Your task to perform on an android device: set default search engine in the chrome app Image 0: 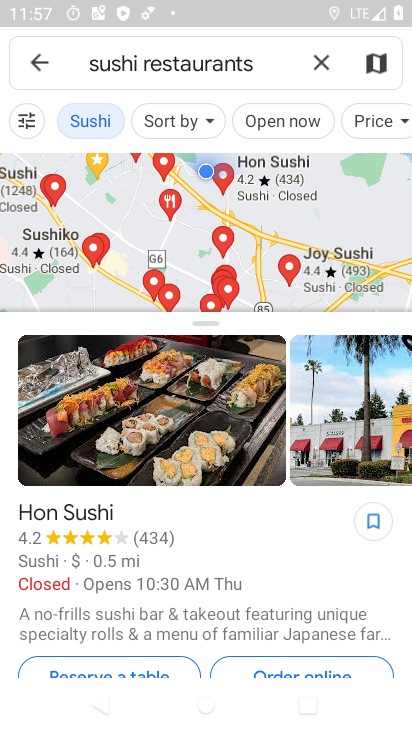
Step 0: press home button
Your task to perform on an android device: set default search engine in the chrome app Image 1: 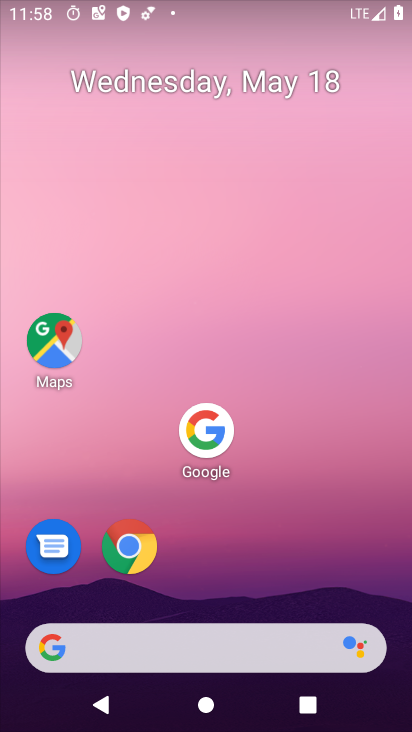
Step 1: click (139, 553)
Your task to perform on an android device: set default search engine in the chrome app Image 2: 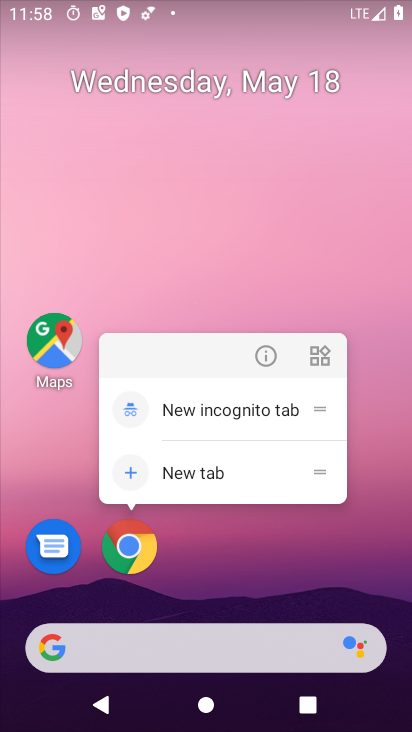
Step 2: click (132, 554)
Your task to perform on an android device: set default search engine in the chrome app Image 3: 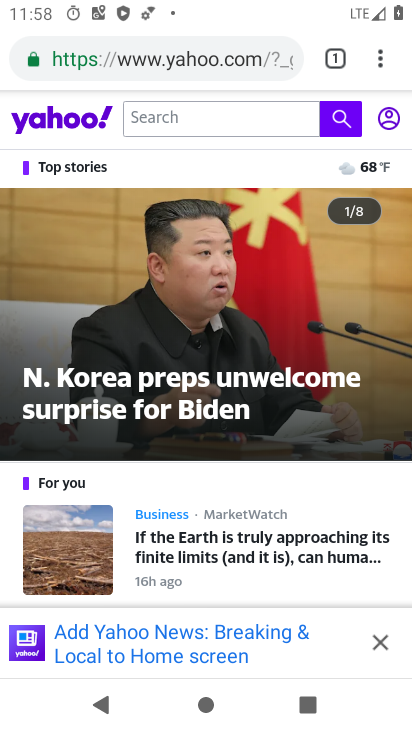
Step 3: click (375, 59)
Your task to perform on an android device: set default search engine in the chrome app Image 4: 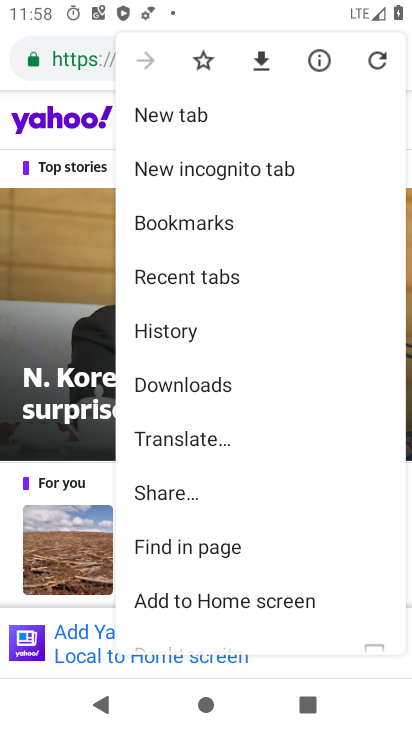
Step 4: drag from (269, 603) to (232, 148)
Your task to perform on an android device: set default search engine in the chrome app Image 5: 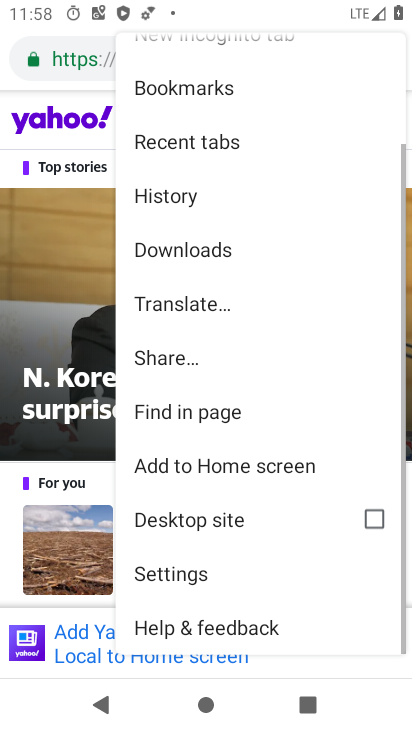
Step 5: click (181, 565)
Your task to perform on an android device: set default search engine in the chrome app Image 6: 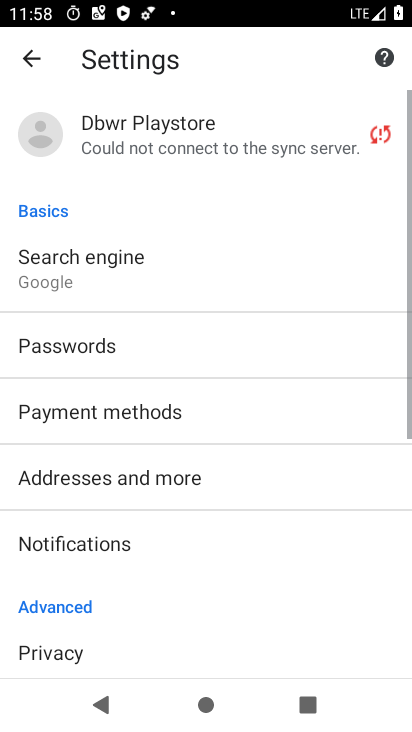
Step 6: drag from (212, 595) to (176, 278)
Your task to perform on an android device: set default search engine in the chrome app Image 7: 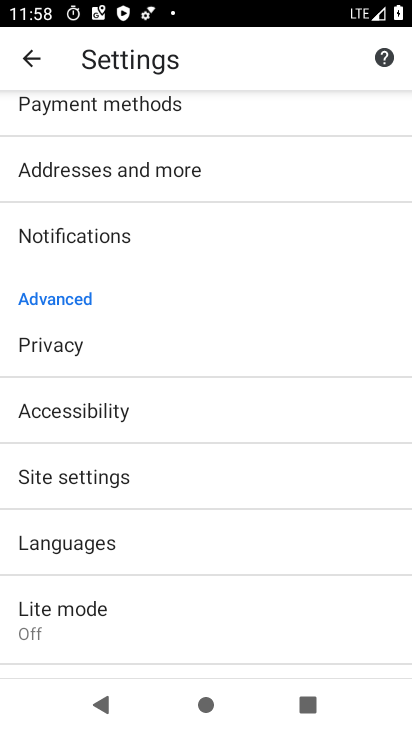
Step 7: drag from (128, 304) to (184, 597)
Your task to perform on an android device: set default search engine in the chrome app Image 8: 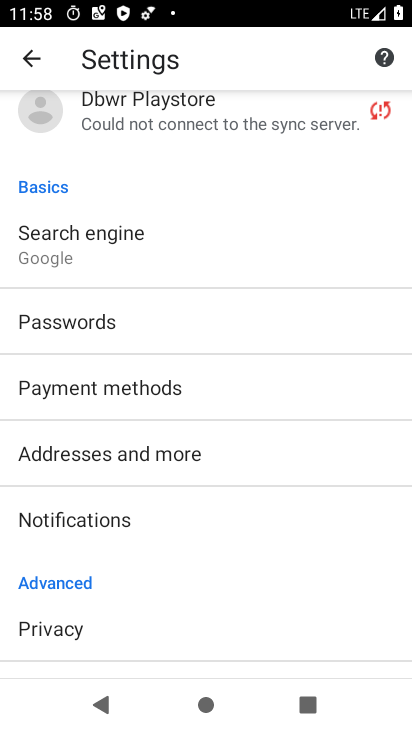
Step 8: click (101, 253)
Your task to perform on an android device: set default search engine in the chrome app Image 9: 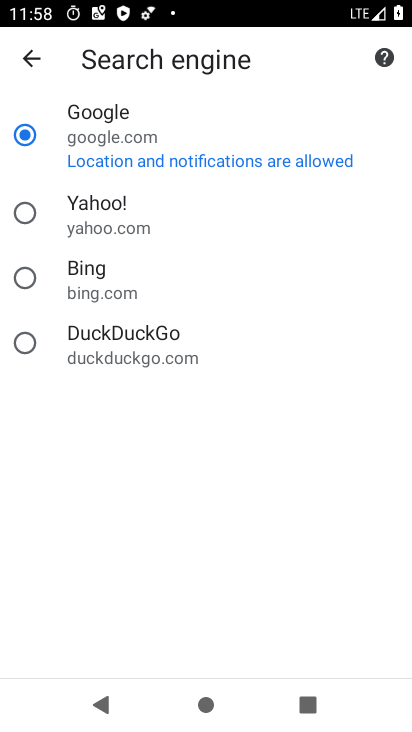
Step 9: click (37, 213)
Your task to perform on an android device: set default search engine in the chrome app Image 10: 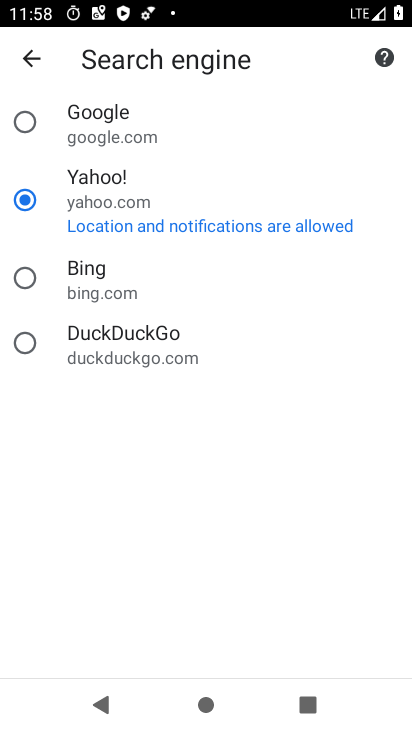
Step 10: task complete